Your task to perform on an android device: choose inbox layout in the gmail app Image 0: 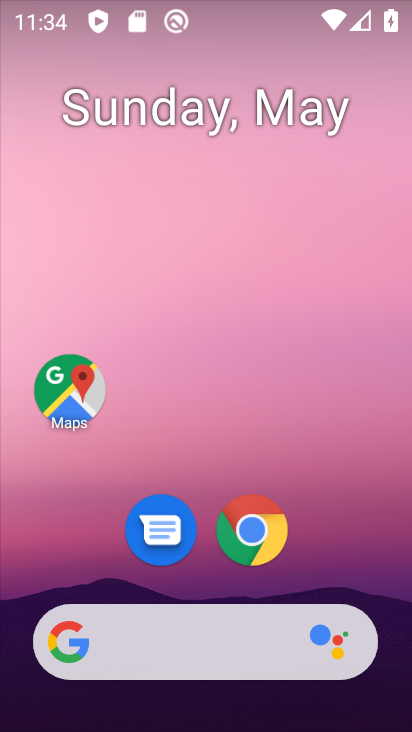
Step 0: drag from (217, 560) to (246, 121)
Your task to perform on an android device: choose inbox layout in the gmail app Image 1: 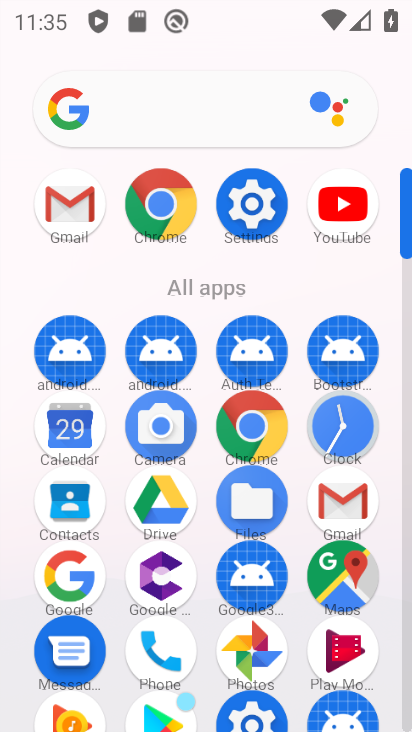
Step 1: click (65, 196)
Your task to perform on an android device: choose inbox layout in the gmail app Image 2: 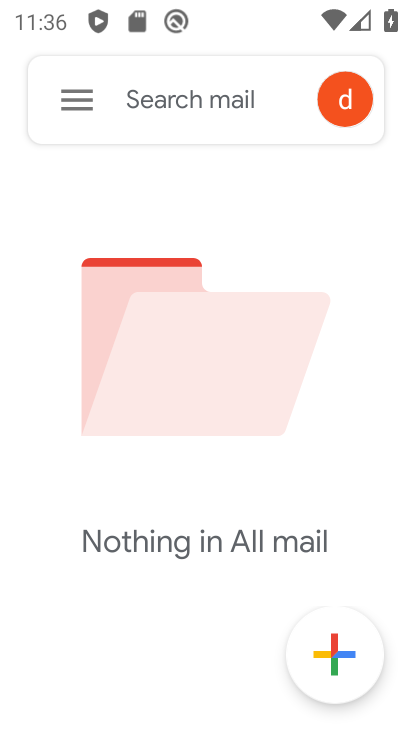
Step 2: click (75, 92)
Your task to perform on an android device: choose inbox layout in the gmail app Image 3: 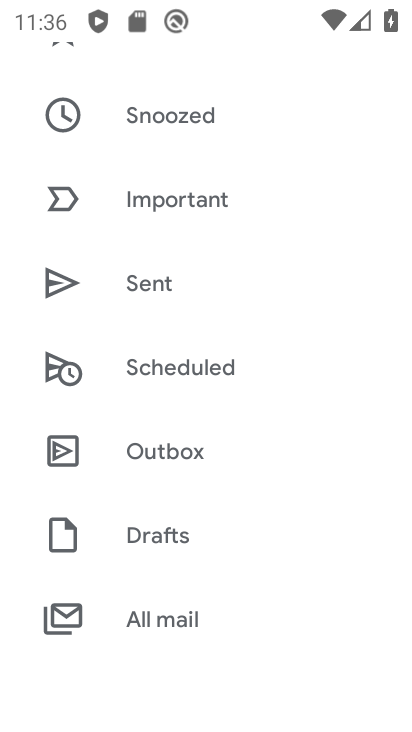
Step 3: drag from (220, 613) to (337, 86)
Your task to perform on an android device: choose inbox layout in the gmail app Image 4: 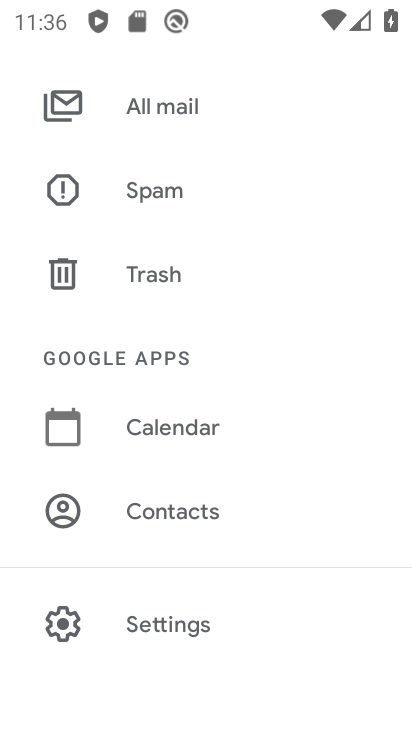
Step 4: click (175, 636)
Your task to perform on an android device: choose inbox layout in the gmail app Image 5: 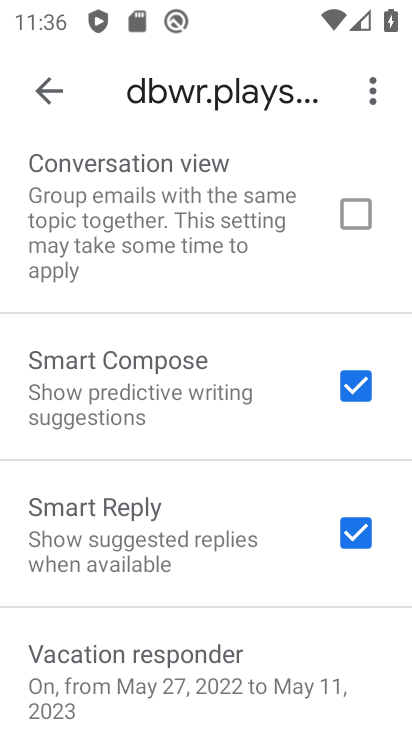
Step 5: drag from (207, 207) to (161, 700)
Your task to perform on an android device: choose inbox layout in the gmail app Image 6: 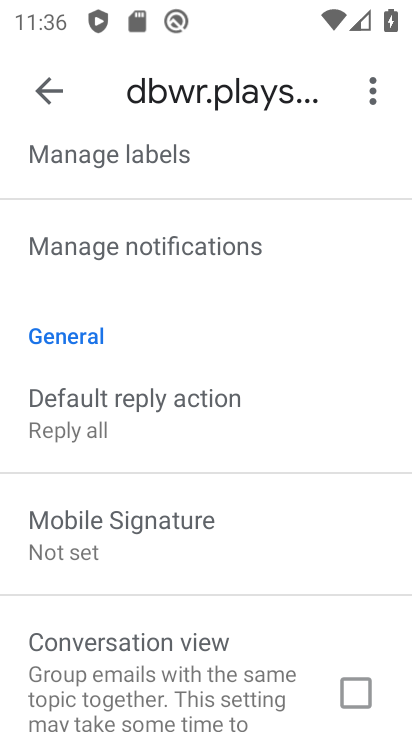
Step 6: drag from (181, 246) to (121, 729)
Your task to perform on an android device: choose inbox layout in the gmail app Image 7: 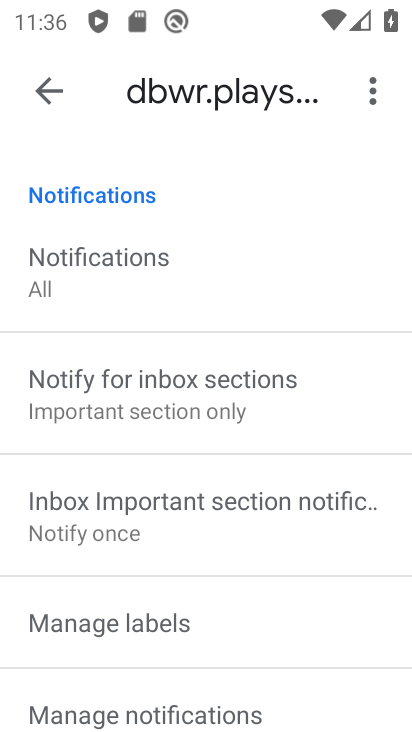
Step 7: drag from (109, 299) to (110, 728)
Your task to perform on an android device: choose inbox layout in the gmail app Image 8: 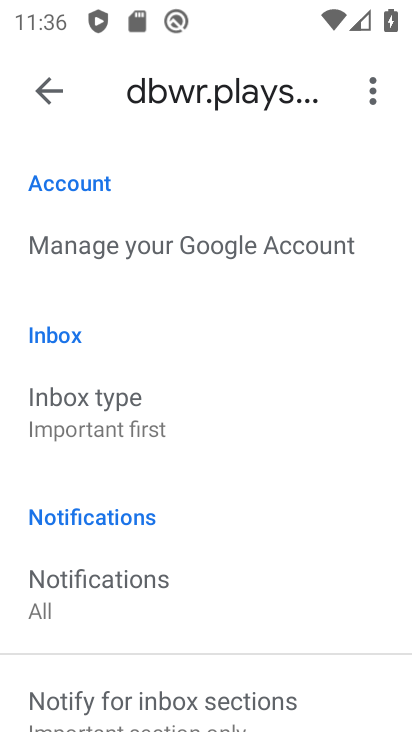
Step 8: click (119, 404)
Your task to perform on an android device: choose inbox layout in the gmail app Image 9: 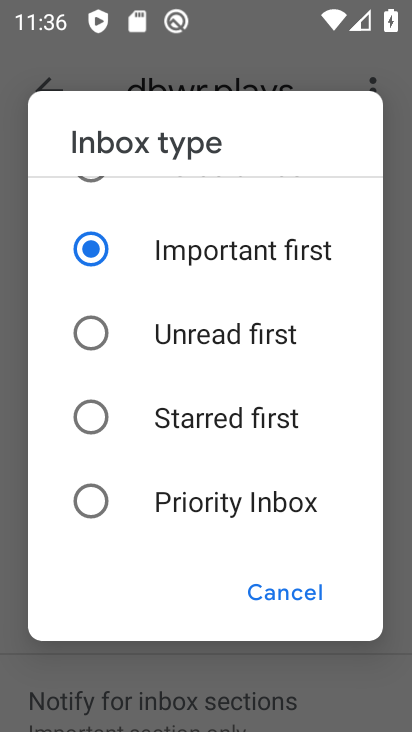
Step 9: drag from (214, 285) to (216, 579)
Your task to perform on an android device: choose inbox layout in the gmail app Image 10: 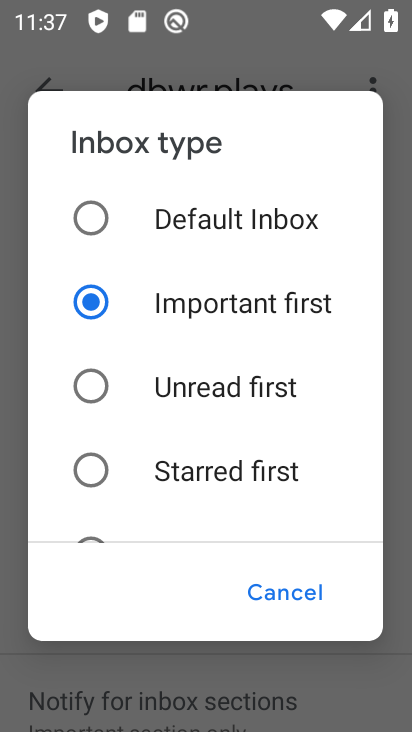
Step 10: click (84, 216)
Your task to perform on an android device: choose inbox layout in the gmail app Image 11: 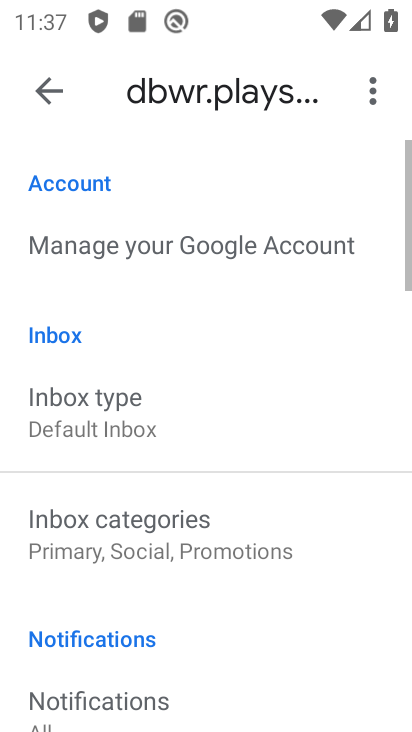
Step 11: task complete